Your task to perform on an android device: turn vacation reply on in the gmail app Image 0: 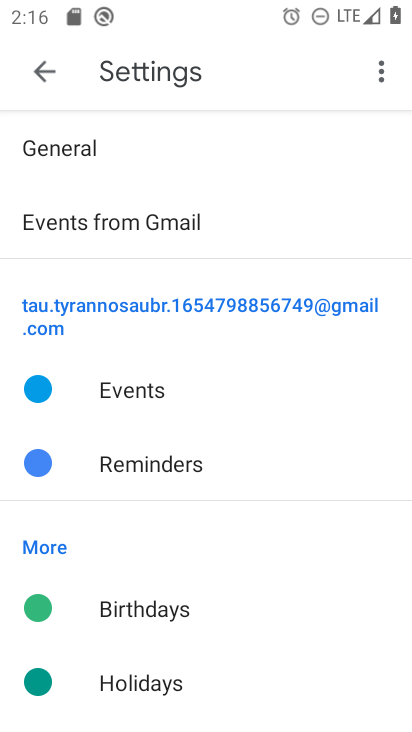
Step 0: press home button
Your task to perform on an android device: turn vacation reply on in the gmail app Image 1: 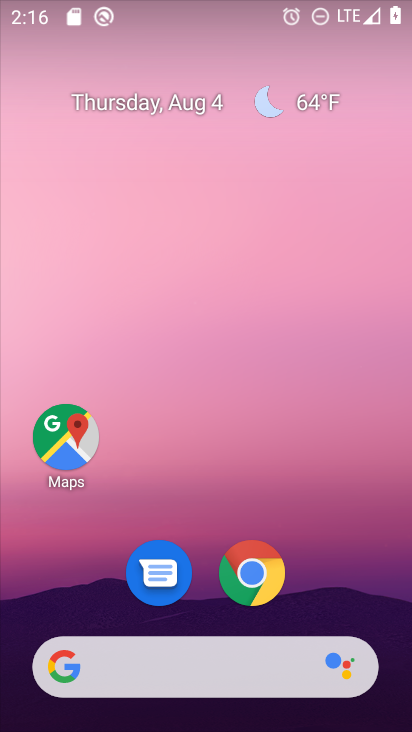
Step 1: drag from (322, 599) to (251, 7)
Your task to perform on an android device: turn vacation reply on in the gmail app Image 2: 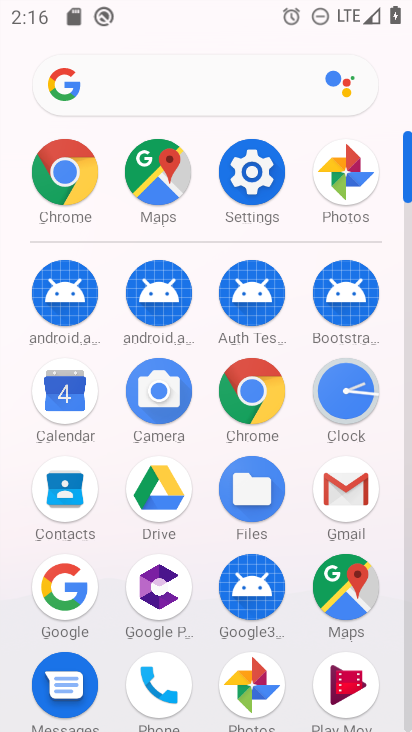
Step 2: click (349, 483)
Your task to perform on an android device: turn vacation reply on in the gmail app Image 3: 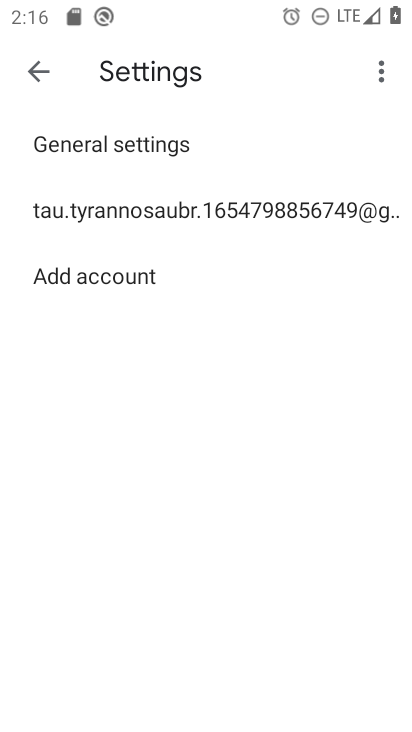
Step 3: click (115, 193)
Your task to perform on an android device: turn vacation reply on in the gmail app Image 4: 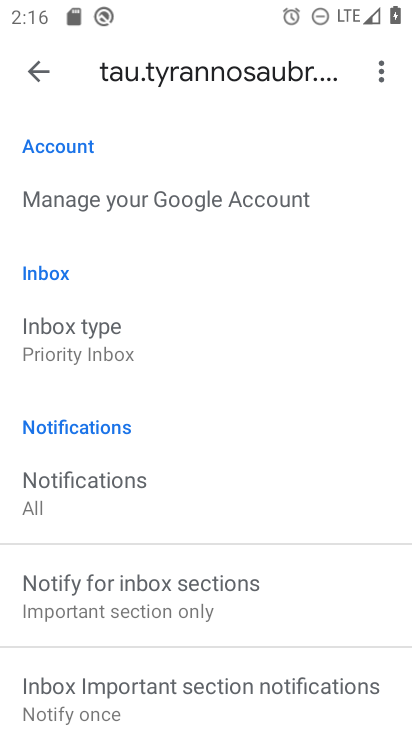
Step 4: drag from (214, 538) to (242, 168)
Your task to perform on an android device: turn vacation reply on in the gmail app Image 5: 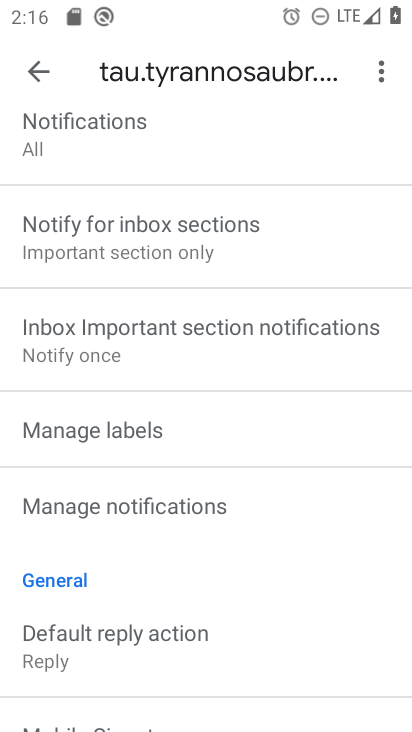
Step 5: drag from (247, 566) to (268, 199)
Your task to perform on an android device: turn vacation reply on in the gmail app Image 6: 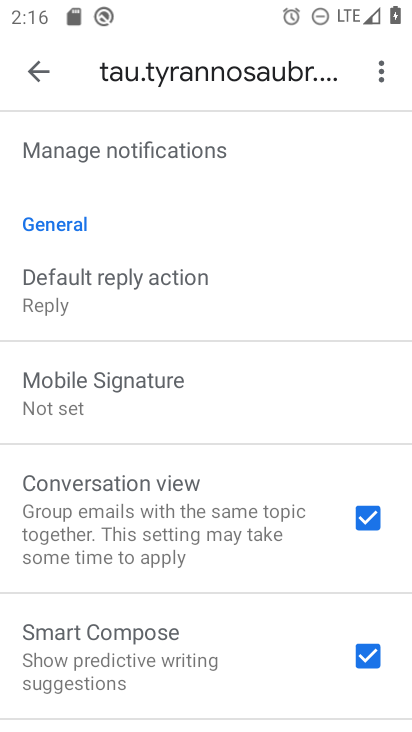
Step 6: drag from (259, 613) to (288, 244)
Your task to perform on an android device: turn vacation reply on in the gmail app Image 7: 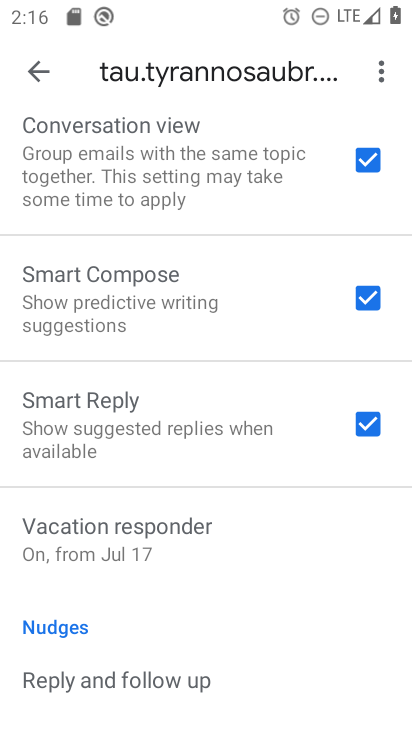
Step 7: click (141, 565)
Your task to perform on an android device: turn vacation reply on in the gmail app Image 8: 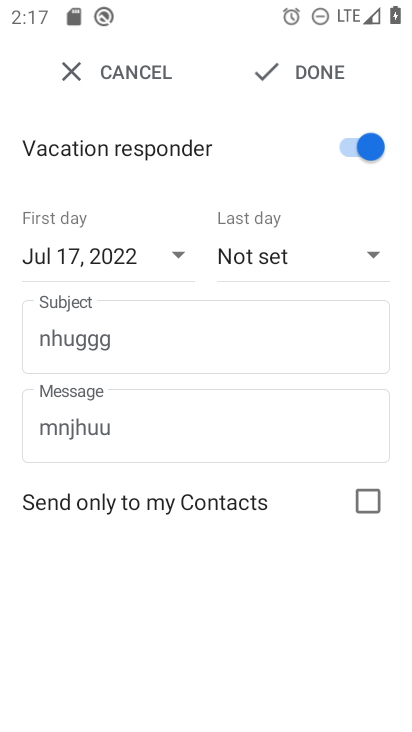
Step 8: task complete